Your task to perform on an android device: set the stopwatch Image 0: 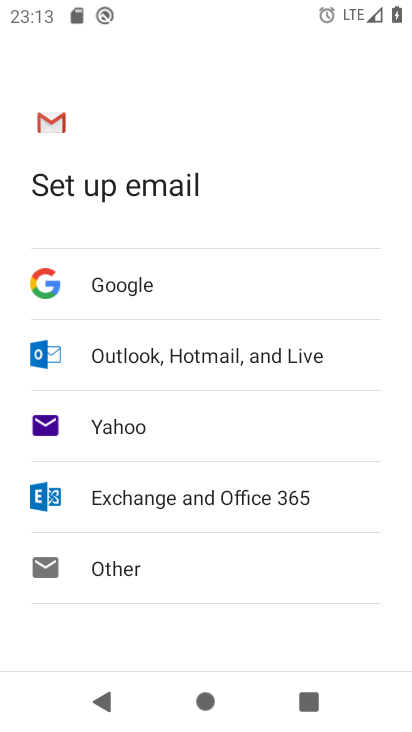
Step 0: press home button
Your task to perform on an android device: set the stopwatch Image 1: 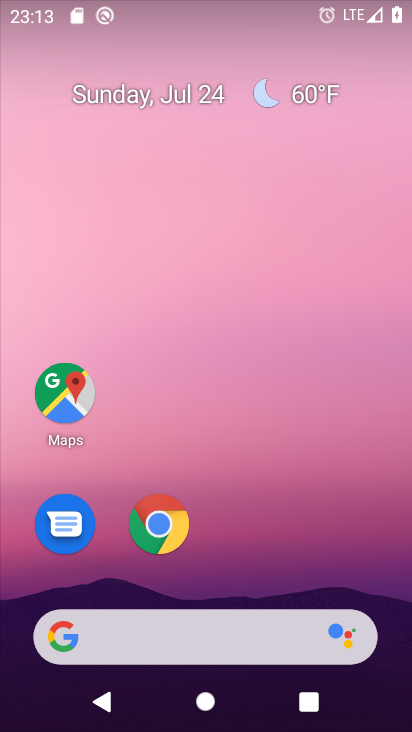
Step 1: drag from (234, 516) to (275, 48)
Your task to perform on an android device: set the stopwatch Image 2: 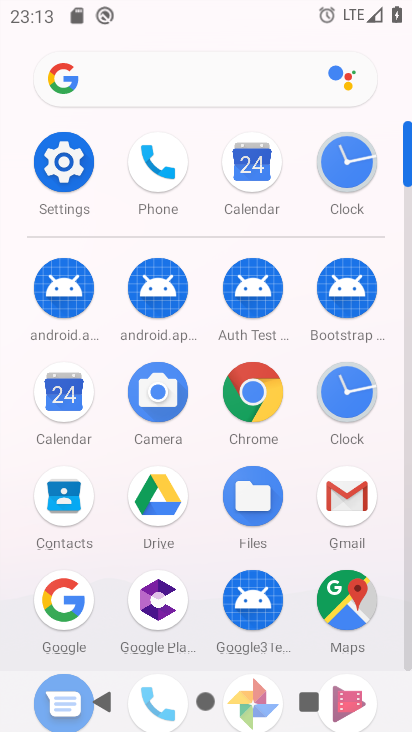
Step 2: click (337, 156)
Your task to perform on an android device: set the stopwatch Image 3: 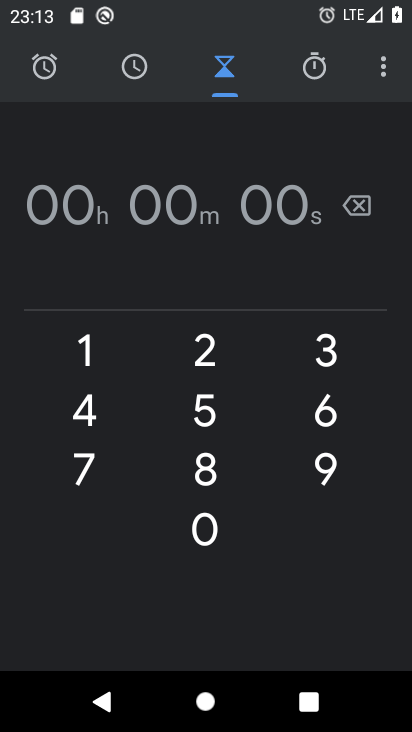
Step 3: click (302, 68)
Your task to perform on an android device: set the stopwatch Image 4: 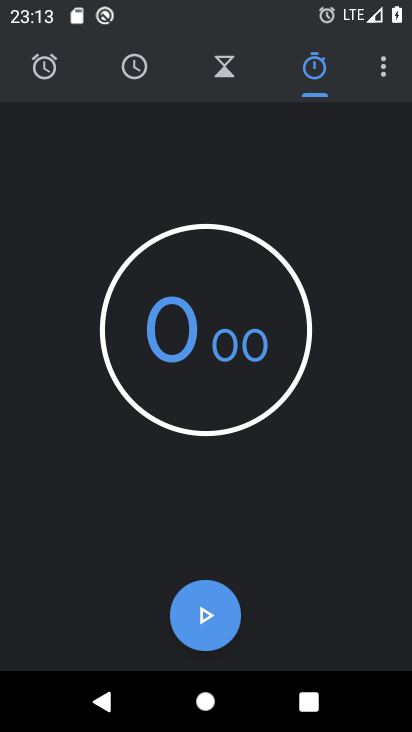
Step 4: task complete